Your task to perform on an android device: Show me the alarms in the clock app Image 0: 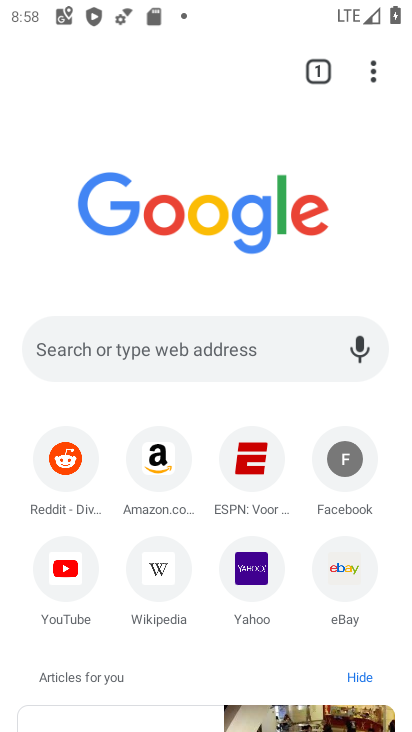
Step 0: press home button
Your task to perform on an android device: Show me the alarms in the clock app Image 1: 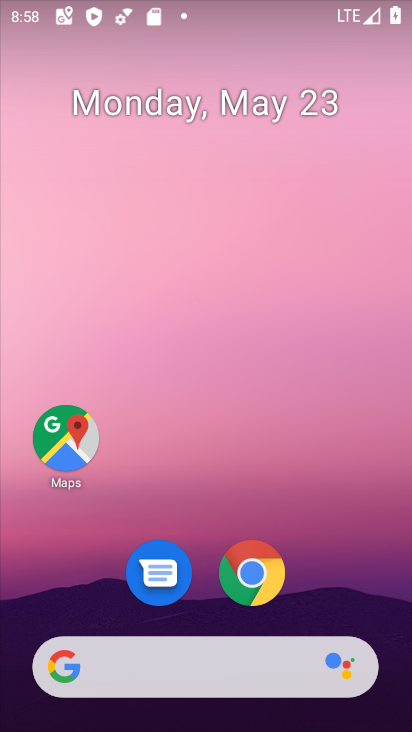
Step 1: drag from (206, 519) to (192, 9)
Your task to perform on an android device: Show me the alarms in the clock app Image 2: 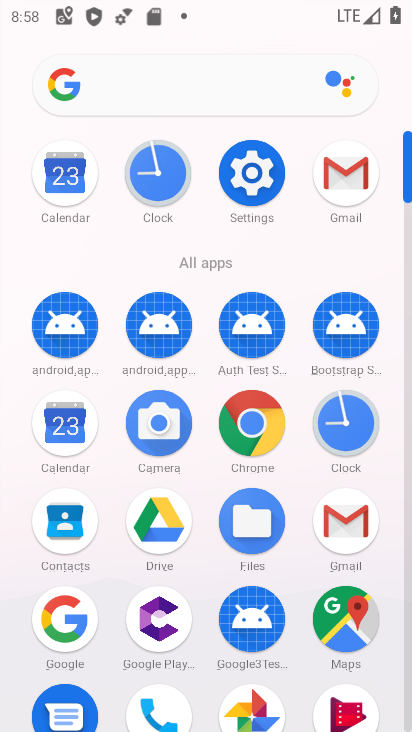
Step 2: click (154, 174)
Your task to perform on an android device: Show me the alarms in the clock app Image 3: 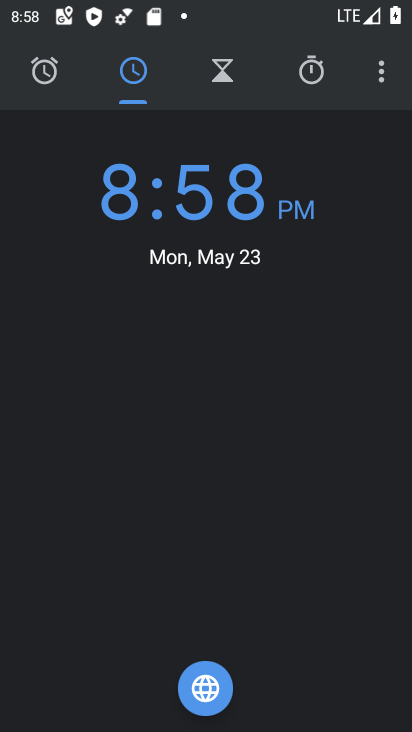
Step 3: click (48, 72)
Your task to perform on an android device: Show me the alarms in the clock app Image 4: 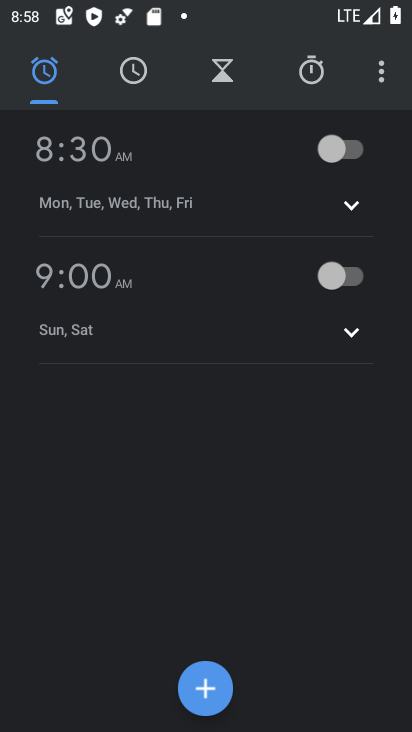
Step 4: task complete